Your task to perform on an android device: install app "Google News" Image 0: 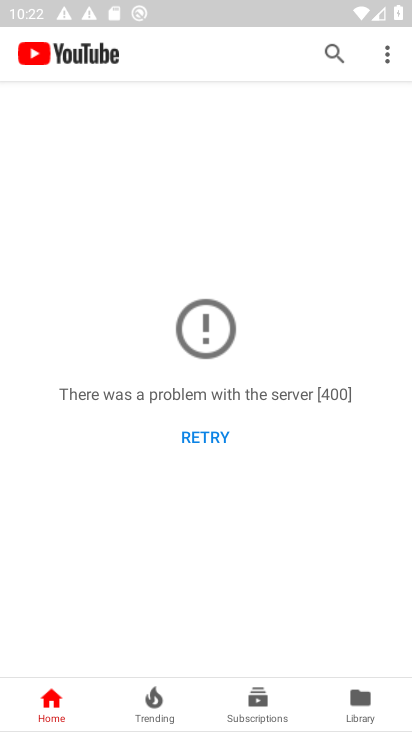
Step 0: press home button
Your task to perform on an android device: install app "Google News" Image 1: 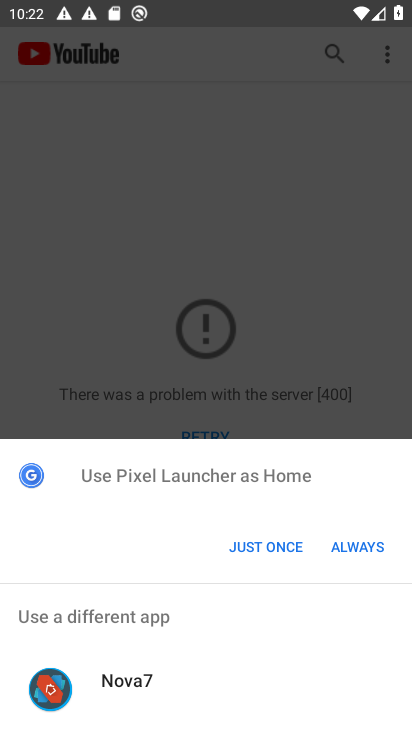
Step 1: click (367, 545)
Your task to perform on an android device: install app "Google News" Image 2: 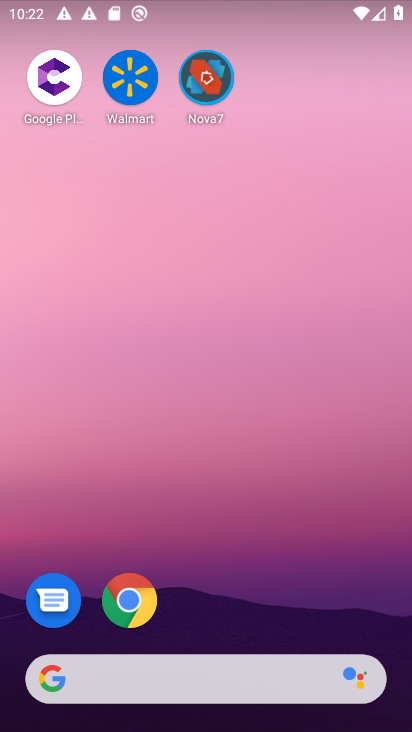
Step 2: drag from (226, 614) to (269, 3)
Your task to perform on an android device: install app "Google News" Image 3: 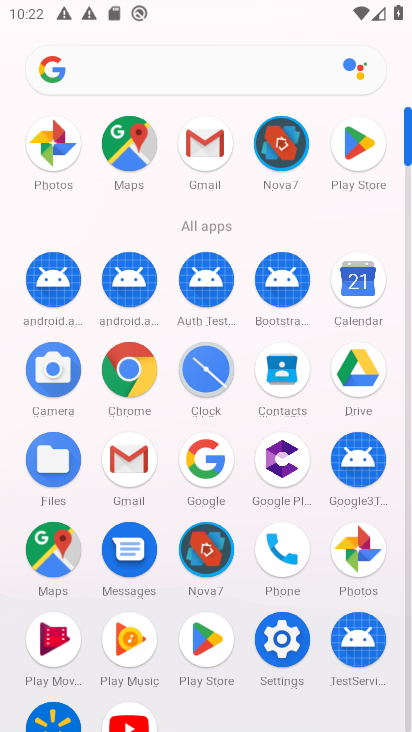
Step 3: click (366, 162)
Your task to perform on an android device: install app "Google News" Image 4: 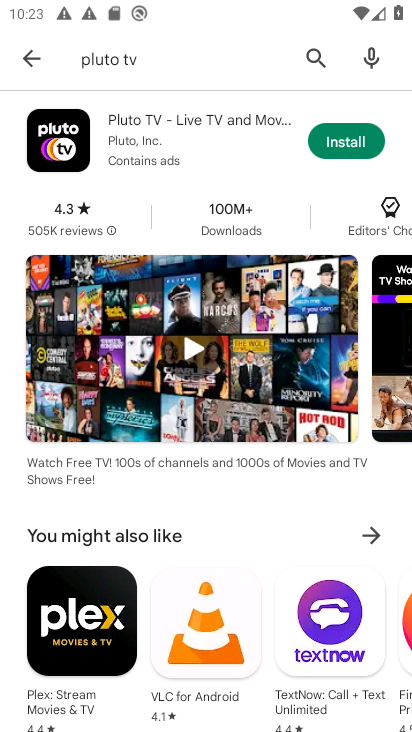
Step 4: click (196, 56)
Your task to perform on an android device: install app "Google News" Image 5: 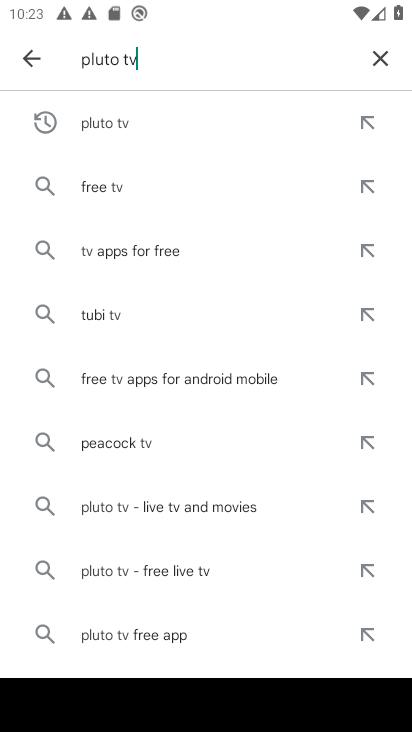
Step 5: click (378, 51)
Your task to perform on an android device: install app "Google News" Image 6: 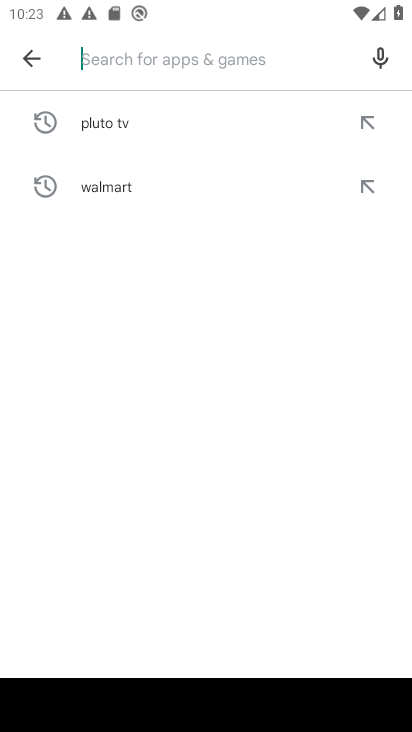
Step 6: type "google news"
Your task to perform on an android device: install app "Google News" Image 7: 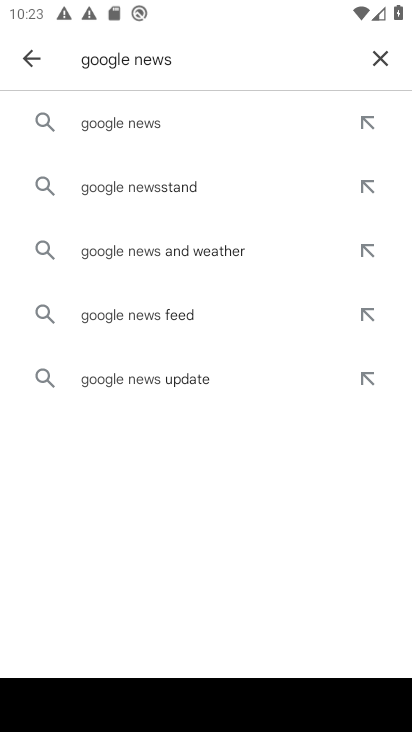
Step 7: click (191, 122)
Your task to perform on an android device: install app "Google News" Image 8: 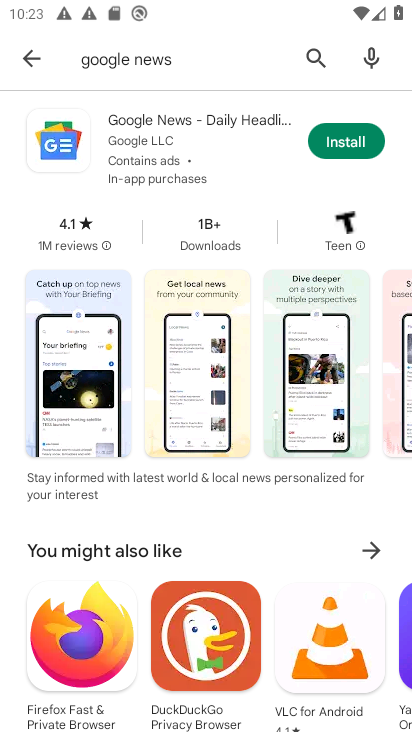
Step 8: click (345, 140)
Your task to perform on an android device: install app "Google News" Image 9: 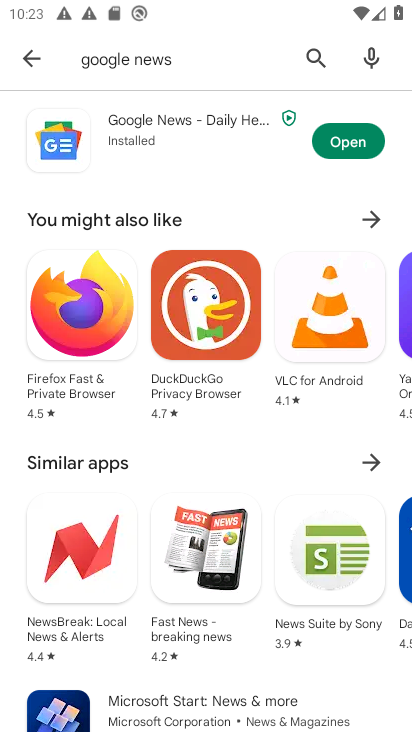
Step 9: task complete